Your task to perform on an android device: show emergency info Image 0: 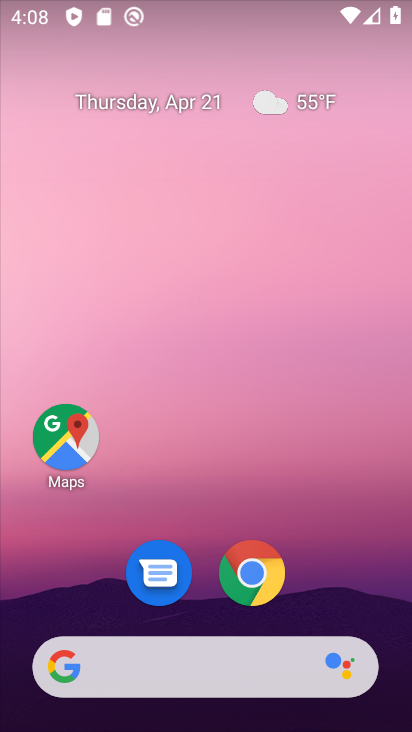
Step 0: drag from (366, 608) to (320, 316)
Your task to perform on an android device: show emergency info Image 1: 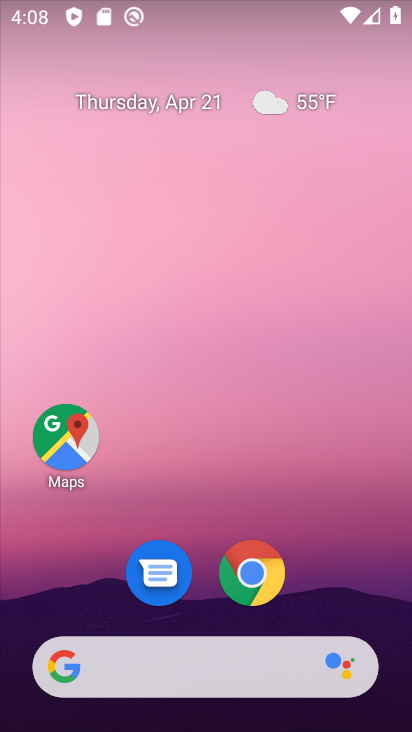
Step 1: drag from (353, 565) to (287, 155)
Your task to perform on an android device: show emergency info Image 2: 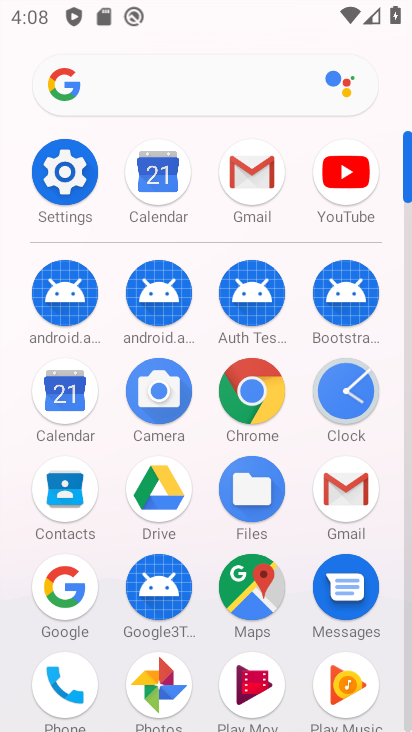
Step 2: click (410, 699)
Your task to perform on an android device: show emergency info Image 3: 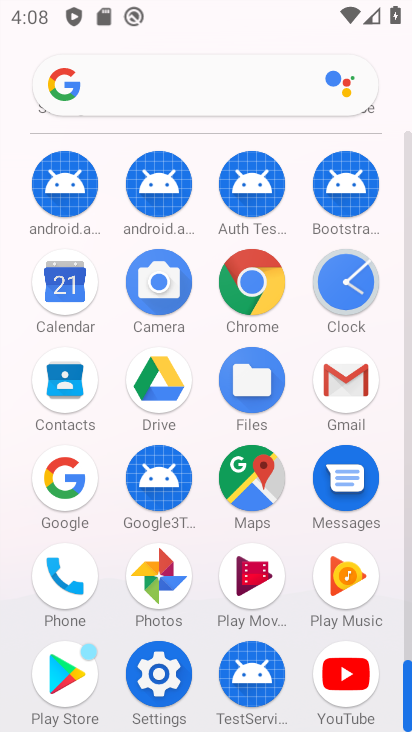
Step 3: click (157, 674)
Your task to perform on an android device: show emergency info Image 4: 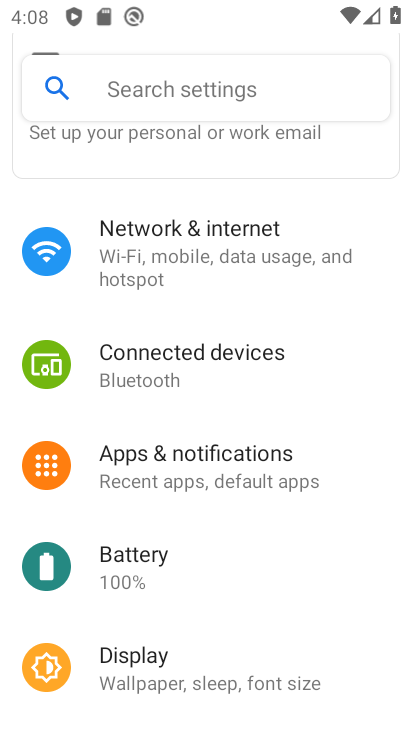
Step 4: drag from (350, 615) to (348, 269)
Your task to perform on an android device: show emergency info Image 5: 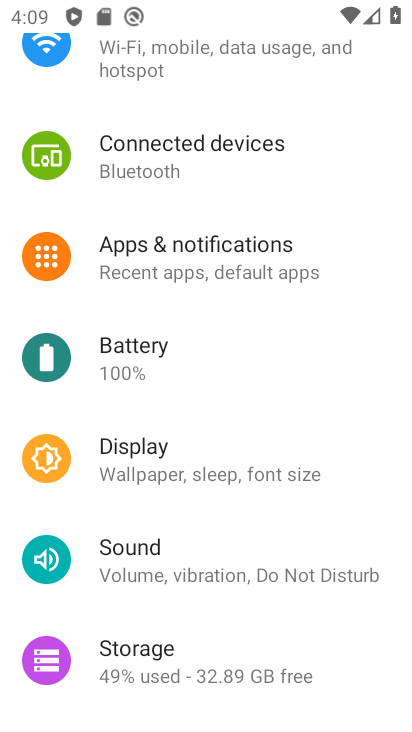
Step 5: drag from (347, 522) to (343, 227)
Your task to perform on an android device: show emergency info Image 6: 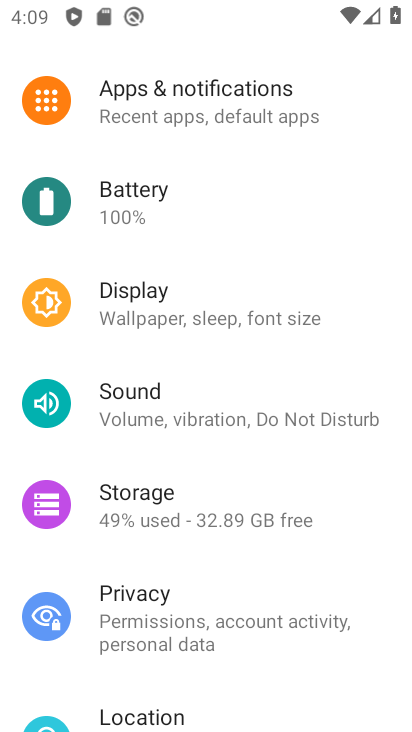
Step 6: drag from (359, 548) to (369, 214)
Your task to perform on an android device: show emergency info Image 7: 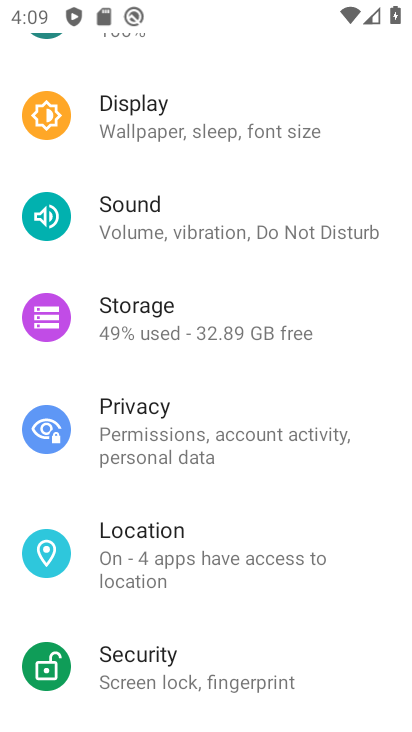
Step 7: drag from (352, 613) to (352, 280)
Your task to perform on an android device: show emergency info Image 8: 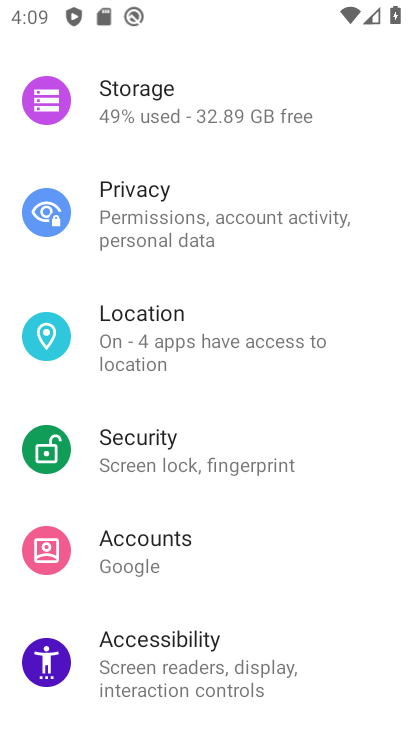
Step 8: drag from (351, 499) to (356, 336)
Your task to perform on an android device: show emergency info Image 9: 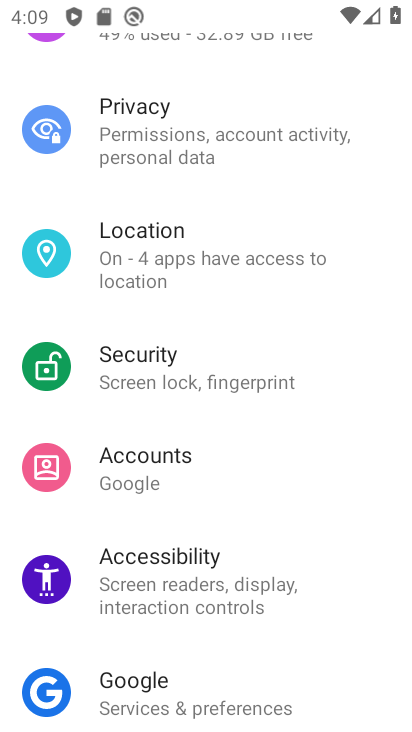
Step 9: drag from (345, 641) to (336, 272)
Your task to perform on an android device: show emergency info Image 10: 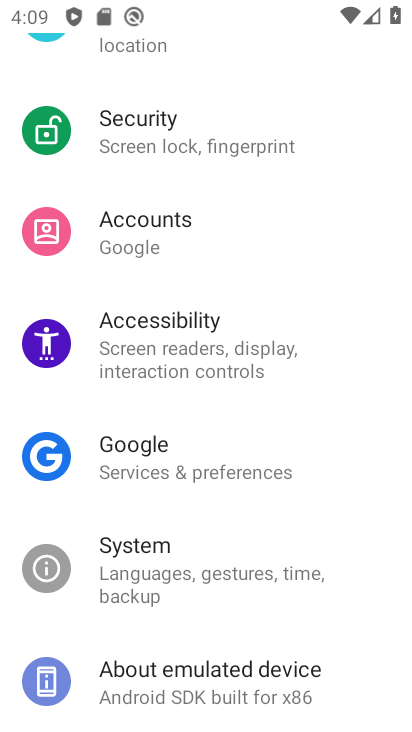
Step 10: click (175, 680)
Your task to perform on an android device: show emergency info Image 11: 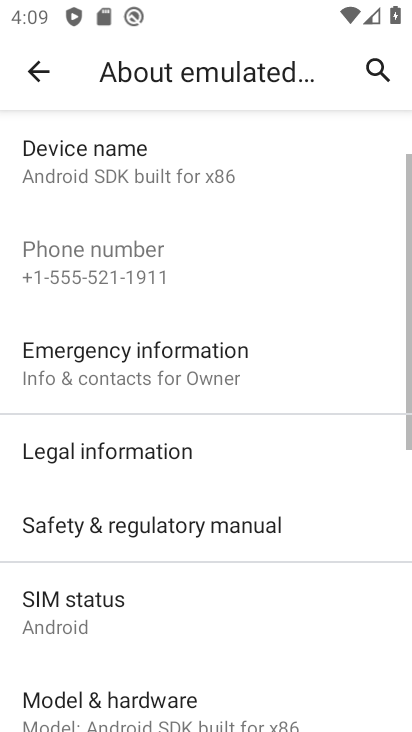
Step 11: click (80, 358)
Your task to perform on an android device: show emergency info Image 12: 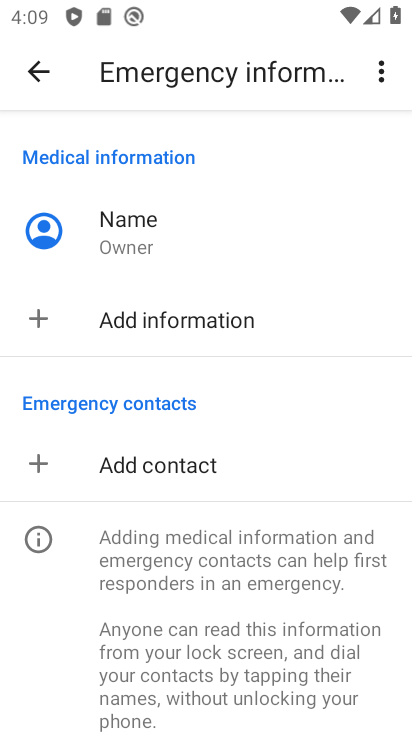
Step 12: task complete